Your task to perform on an android device: check data usage Image 0: 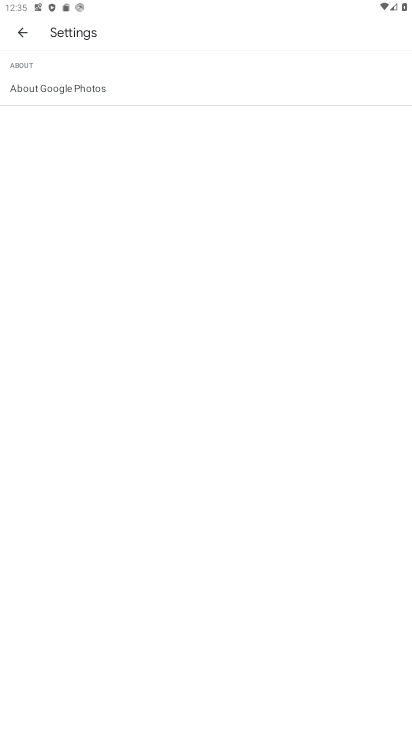
Step 0: press home button
Your task to perform on an android device: check data usage Image 1: 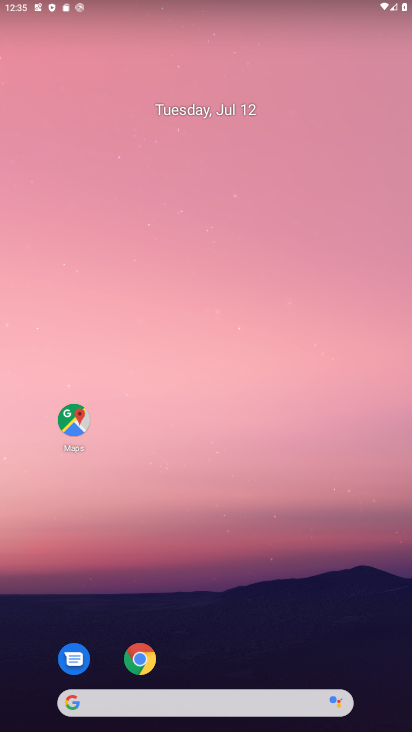
Step 1: drag from (204, 727) to (199, 24)
Your task to perform on an android device: check data usage Image 2: 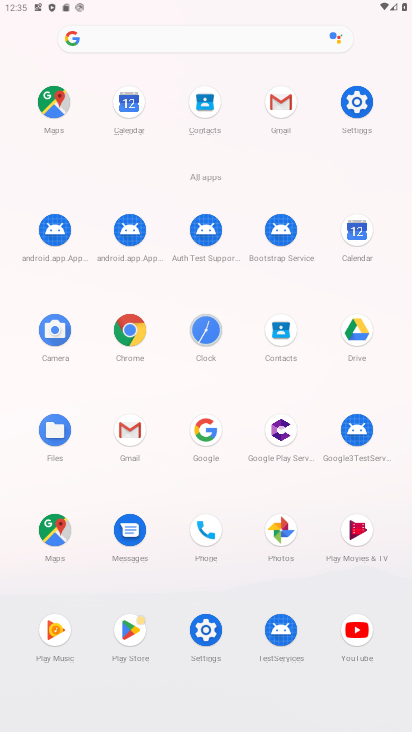
Step 2: click (356, 104)
Your task to perform on an android device: check data usage Image 3: 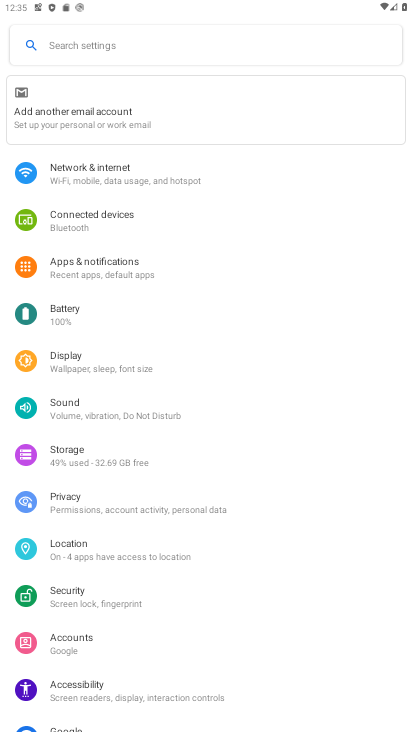
Step 3: click (83, 175)
Your task to perform on an android device: check data usage Image 4: 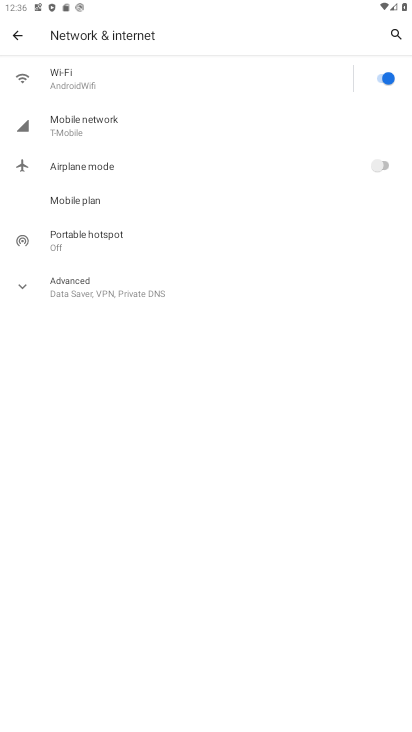
Step 4: click (80, 121)
Your task to perform on an android device: check data usage Image 5: 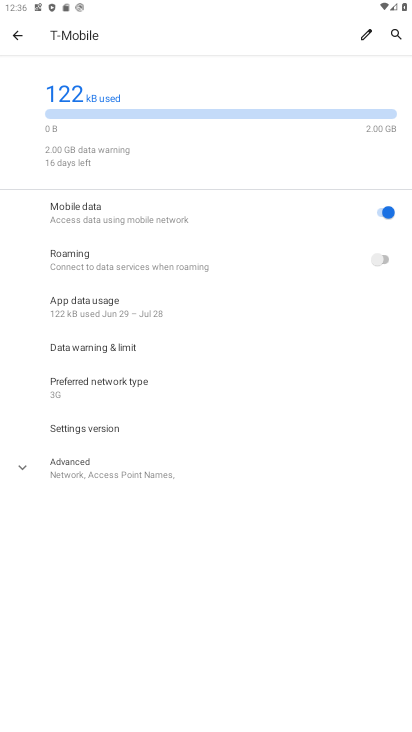
Step 5: click (96, 301)
Your task to perform on an android device: check data usage Image 6: 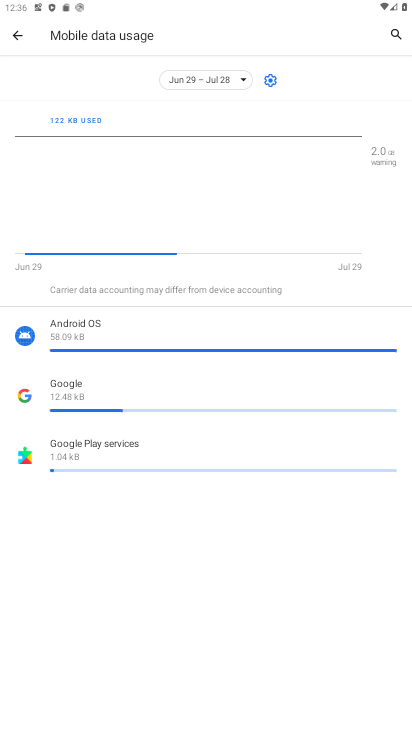
Step 6: task complete